Your task to perform on an android device: Go to accessibility settings Image 0: 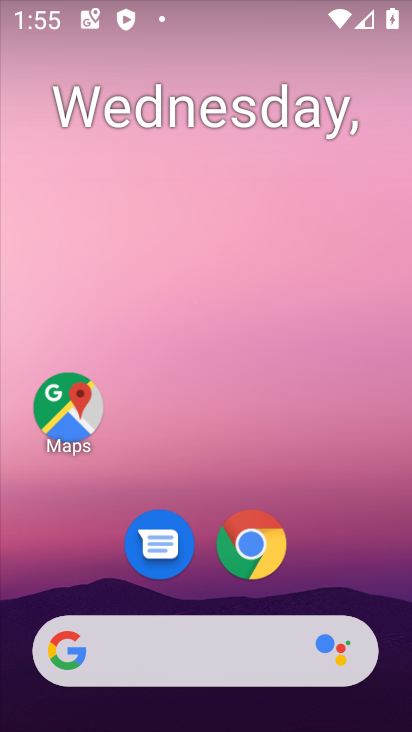
Step 0: drag from (331, 569) to (344, 70)
Your task to perform on an android device: Go to accessibility settings Image 1: 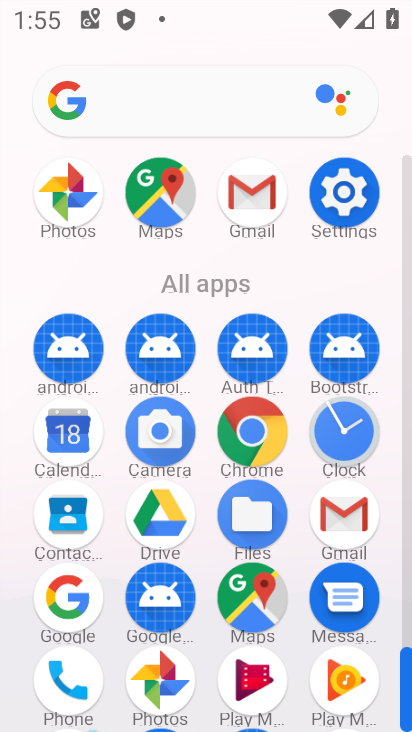
Step 1: click (330, 194)
Your task to perform on an android device: Go to accessibility settings Image 2: 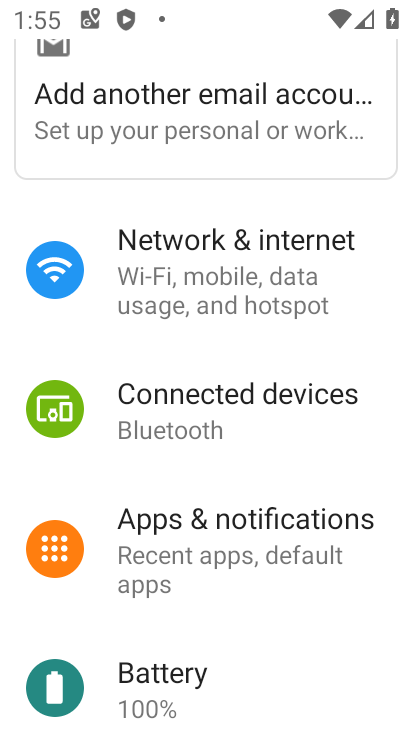
Step 2: drag from (99, 646) to (235, 188)
Your task to perform on an android device: Go to accessibility settings Image 3: 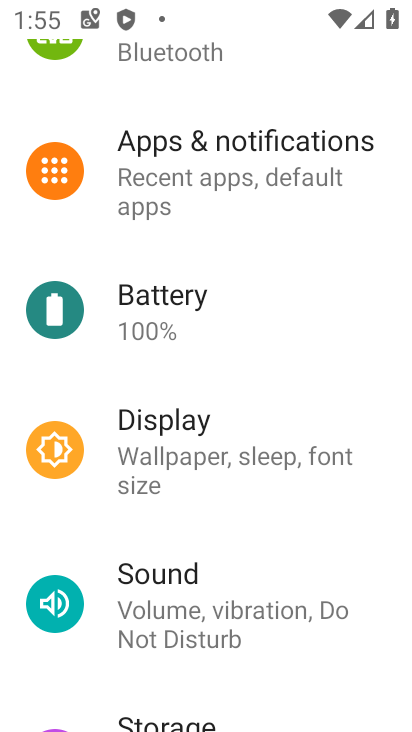
Step 3: drag from (197, 648) to (275, 299)
Your task to perform on an android device: Go to accessibility settings Image 4: 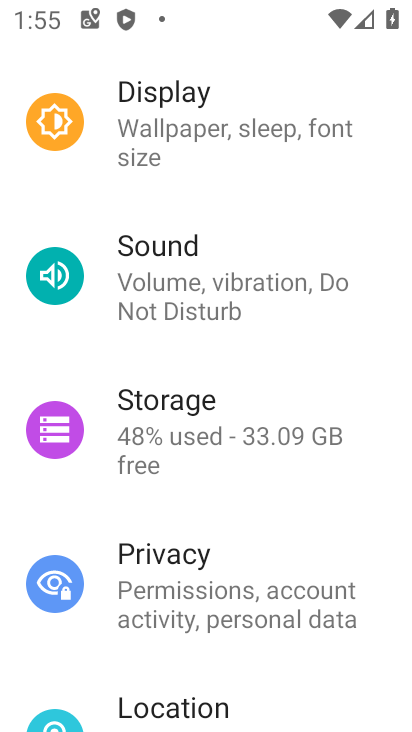
Step 4: drag from (205, 626) to (244, 474)
Your task to perform on an android device: Go to accessibility settings Image 5: 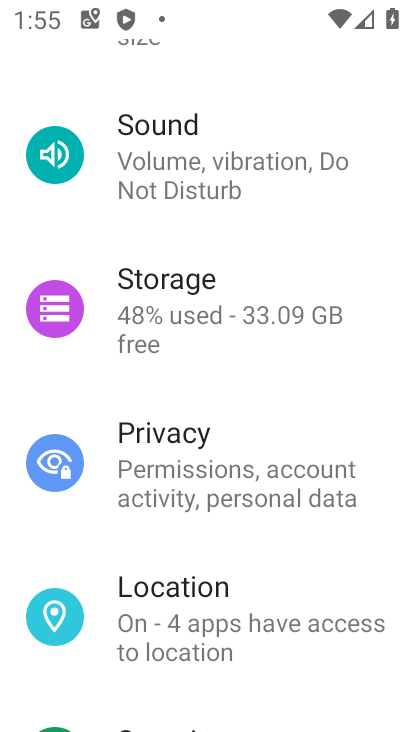
Step 5: drag from (187, 662) to (224, 485)
Your task to perform on an android device: Go to accessibility settings Image 6: 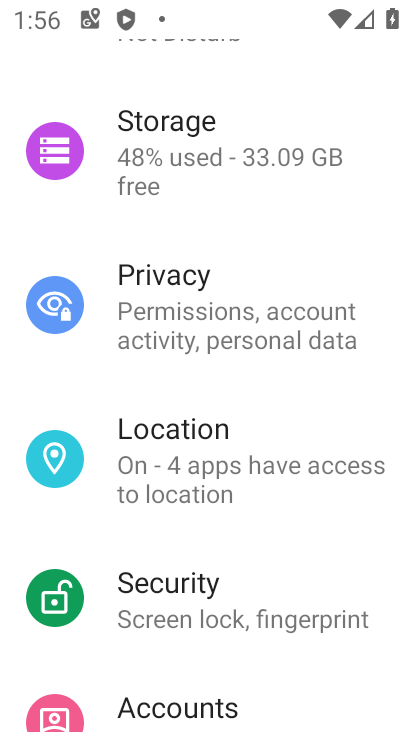
Step 6: drag from (158, 685) to (272, 120)
Your task to perform on an android device: Go to accessibility settings Image 7: 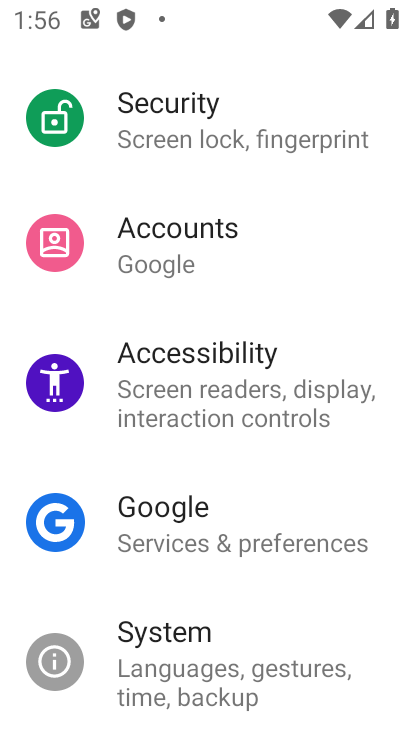
Step 7: drag from (222, 276) to (221, 369)
Your task to perform on an android device: Go to accessibility settings Image 8: 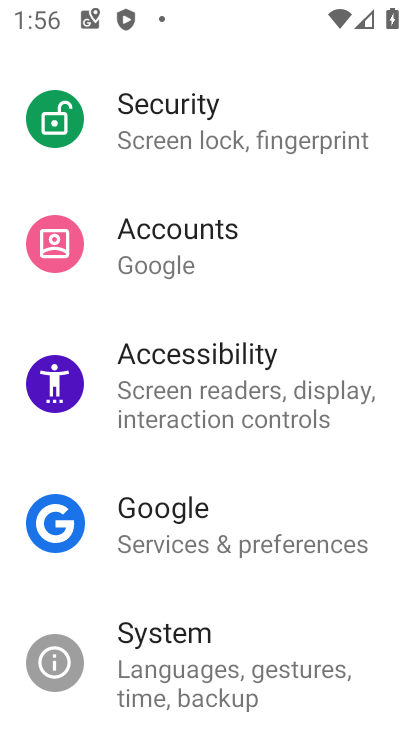
Step 8: click (221, 369)
Your task to perform on an android device: Go to accessibility settings Image 9: 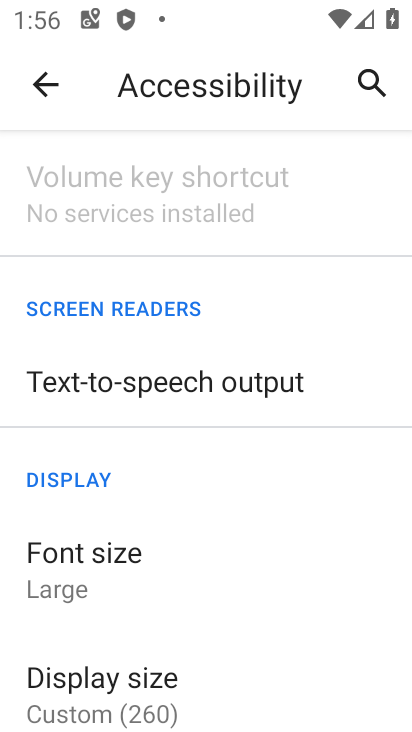
Step 9: task complete